Your task to perform on an android device: empty trash in google photos Image 0: 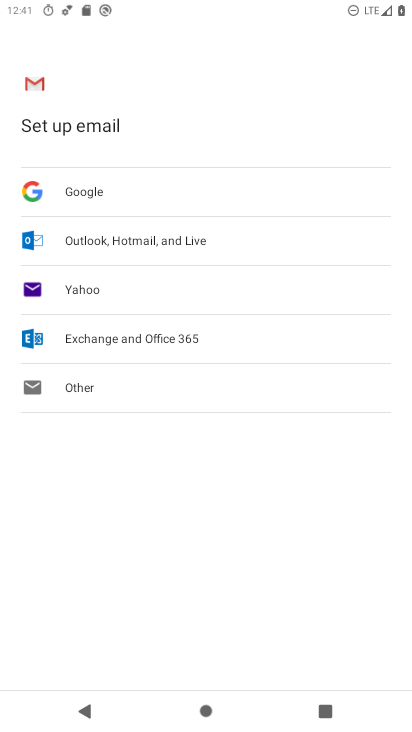
Step 0: press back button
Your task to perform on an android device: empty trash in google photos Image 1: 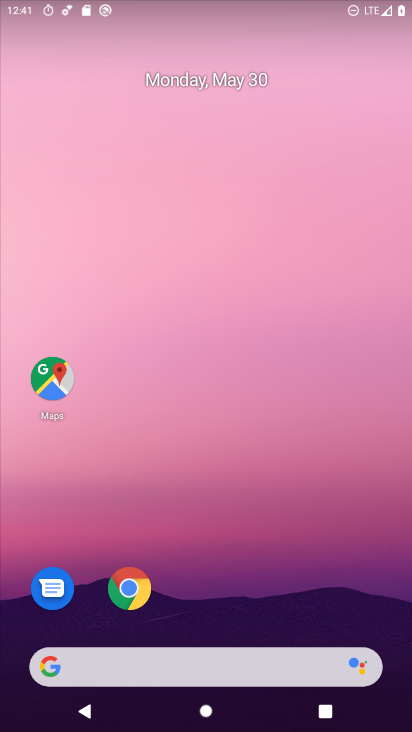
Step 1: drag from (225, 618) to (252, 244)
Your task to perform on an android device: empty trash in google photos Image 2: 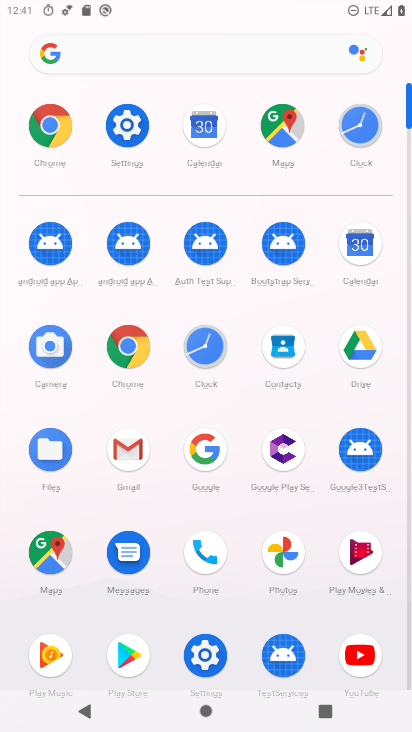
Step 2: click (270, 557)
Your task to perform on an android device: empty trash in google photos Image 3: 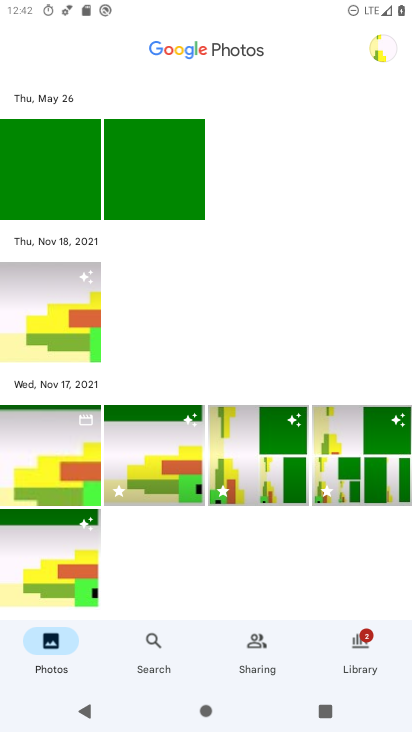
Step 3: click (389, 54)
Your task to perform on an android device: empty trash in google photos Image 4: 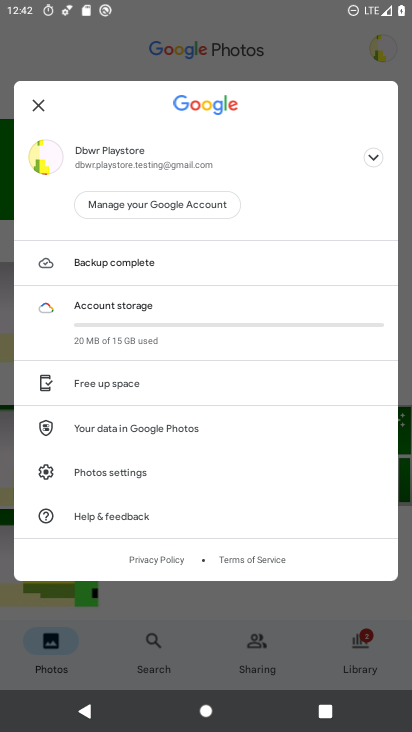
Step 4: click (351, 658)
Your task to perform on an android device: empty trash in google photos Image 5: 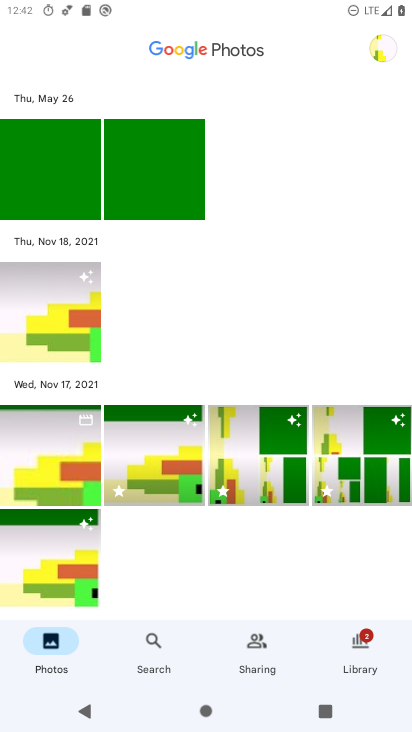
Step 5: click (353, 655)
Your task to perform on an android device: empty trash in google photos Image 6: 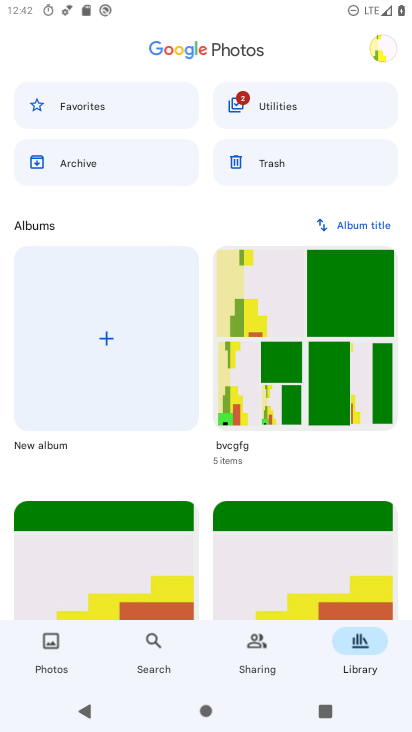
Step 6: click (272, 153)
Your task to perform on an android device: empty trash in google photos Image 7: 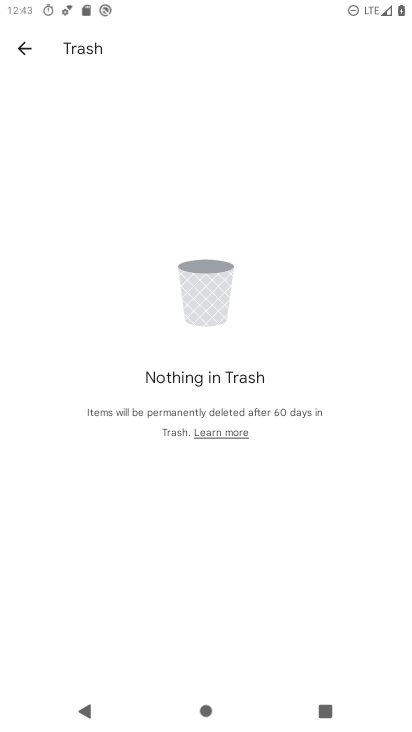
Step 7: task complete